Your task to perform on an android device: change the clock style Image 0: 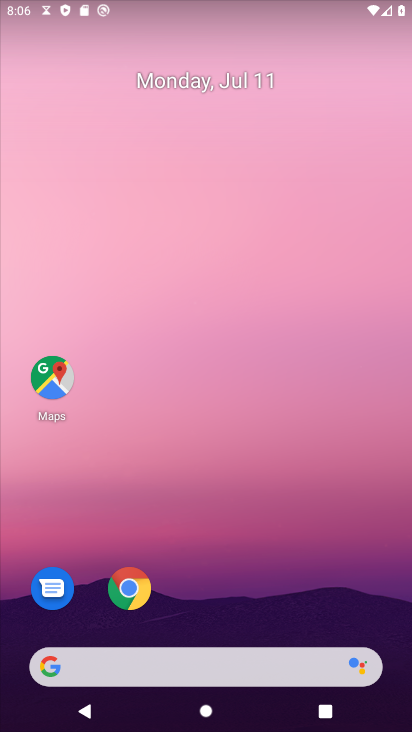
Step 0: press home button
Your task to perform on an android device: change the clock style Image 1: 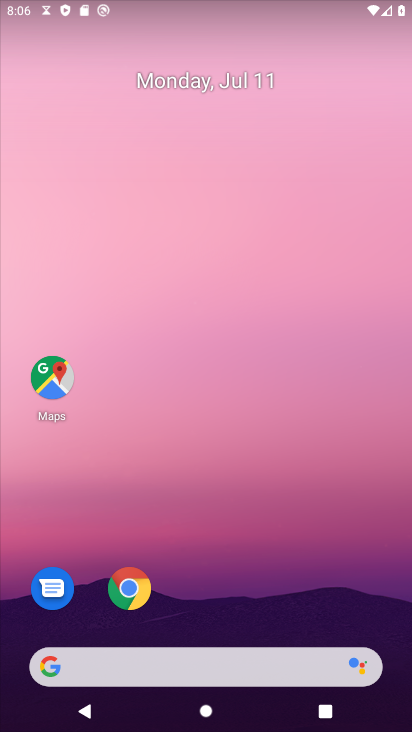
Step 1: drag from (299, 592) to (295, 158)
Your task to perform on an android device: change the clock style Image 2: 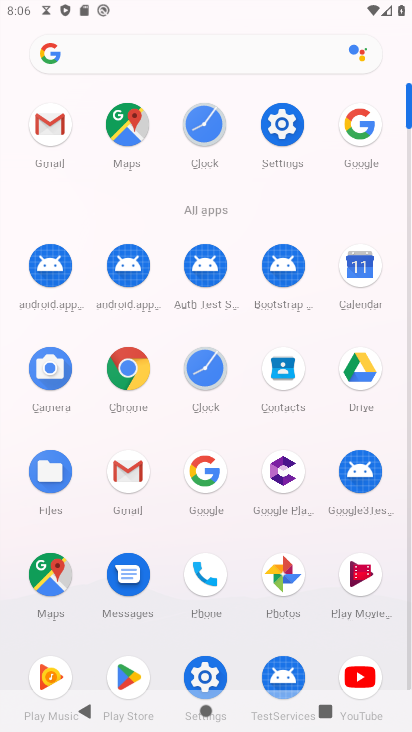
Step 2: click (213, 378)
Your task to perform on an android device: change the clock style Image 3: 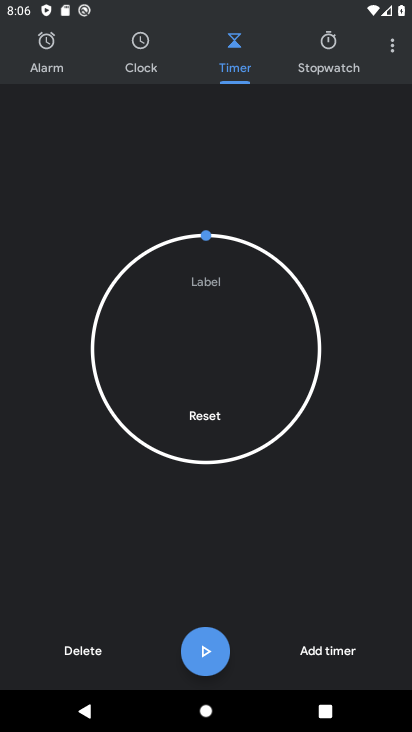
Step 3: click (387, 45)
Your task to perform on an android device: change the clock style Image 4: 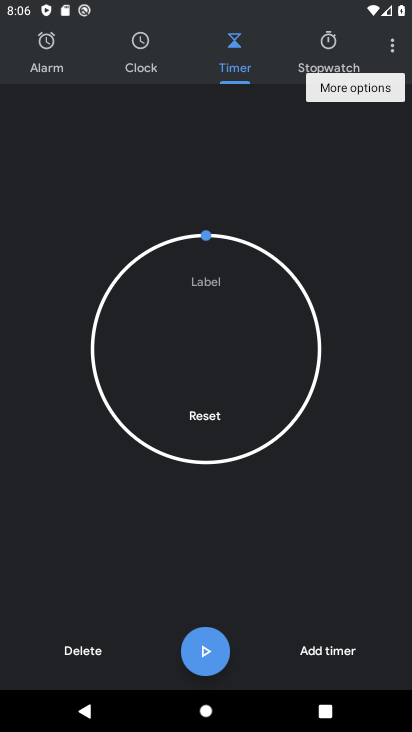
Step 4: click (388, 44)
Your task to perform on an android device: change the clock style Image 5: 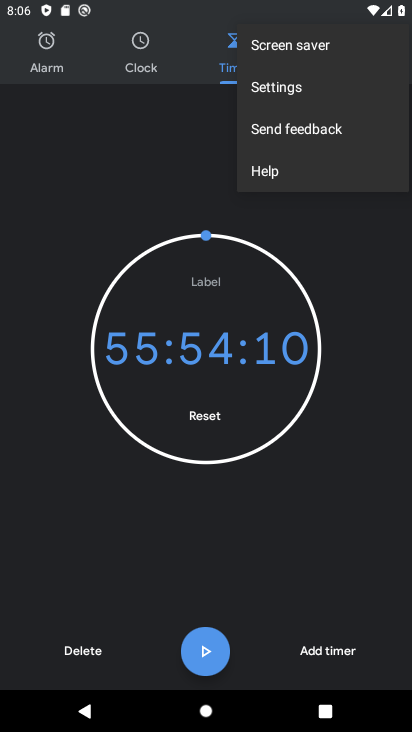
Step 5: click (288, 90)
Your task to perform on an android device: change the clock style Image 6: 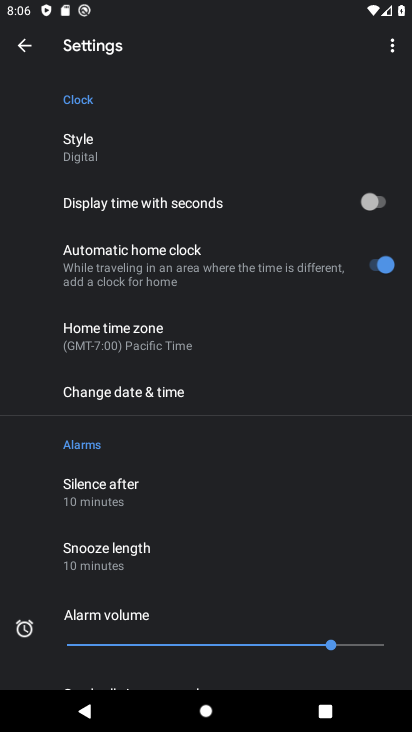
Step 6: click (107, 147)
Your task to perform on an android device: change the clock style Image 7: 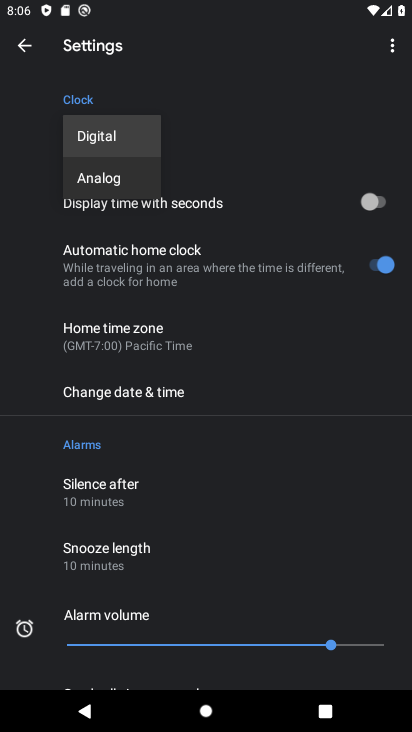
Step 7: click (112, 179)
Your task to perform on an android device: change the clock style Image 8: 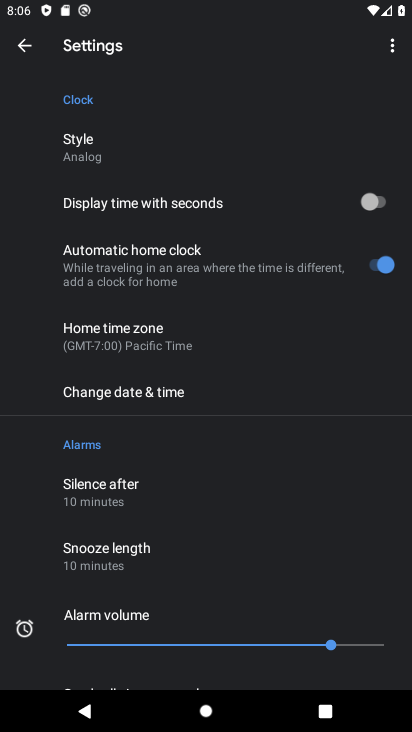
Step 8: task complete